Your task to perform on an android device: What's the weather? Image 0: 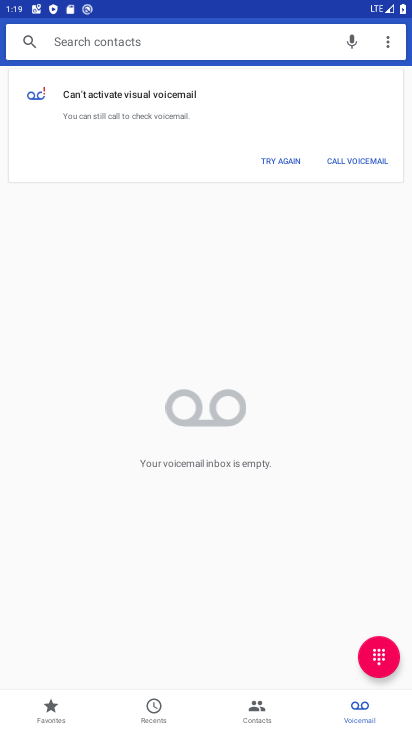
Step 0: press home button
Your task to perform on an android device: What's the weather? Image 1: 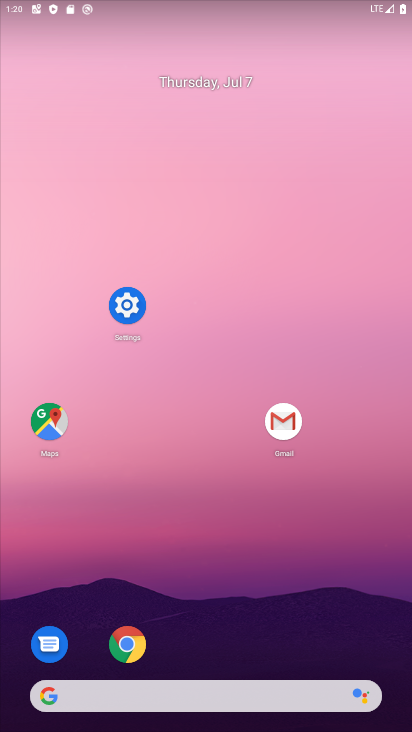
Step 1: task complete